Your task to perform on an android device: toggle pop-ups in chrome Image 0: 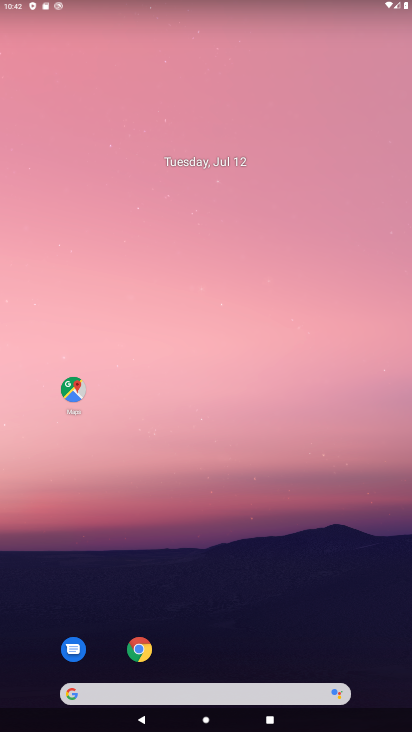
Step 0: drag from (270, 639) to (223, 48)
Your task to perform on an android device: toggle pop-ups in chrome Image 1: 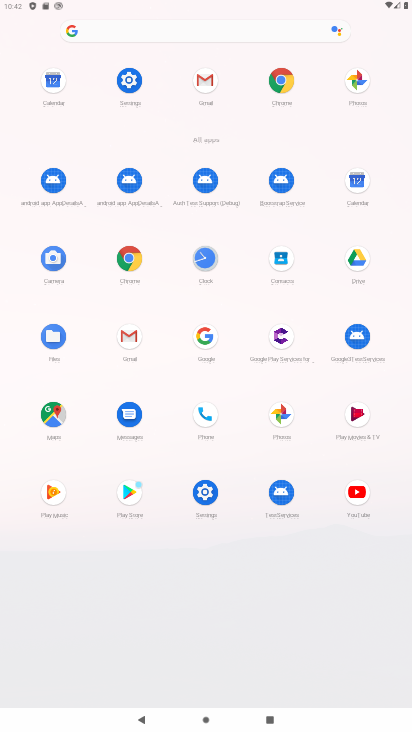
Step 1: click (141, 78)
Your task to perform on an android device: toggle pop-ups in chrome Image 2: 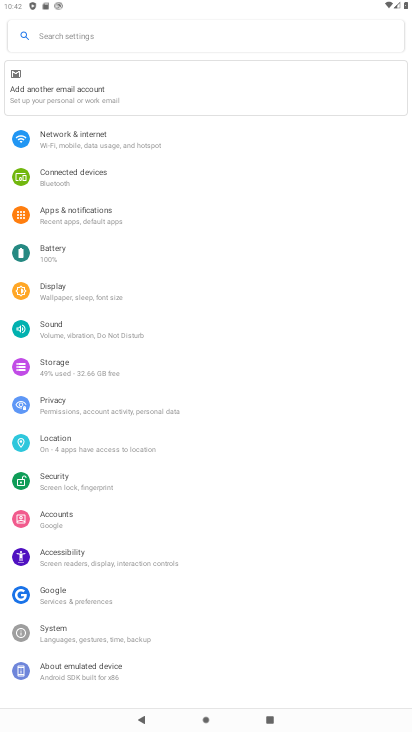
Step 2: press home button
Your task to perform on an android device: toggle pop-ups in chrome Image 3: 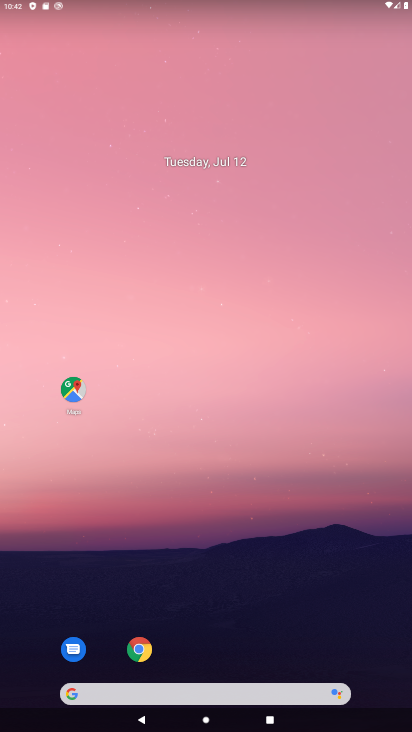
Step 3: click (151, 654)
Your task to perform on an android device: toggle pop-ups in chrome Image 4: 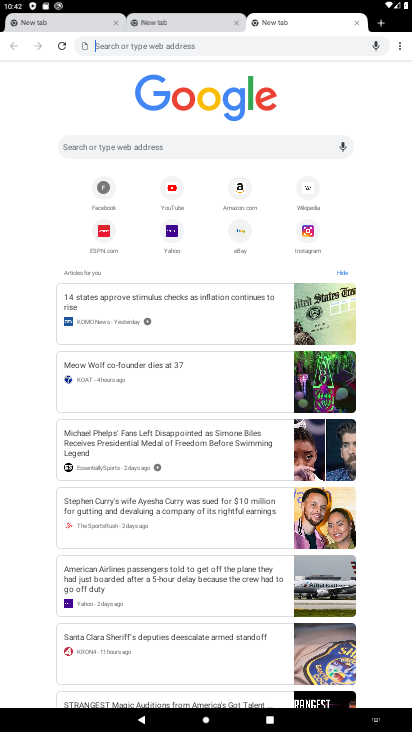
Step 4: click (403, 43)
Your task to perform on an android device: toggle pop-ups in chrome Image 5: 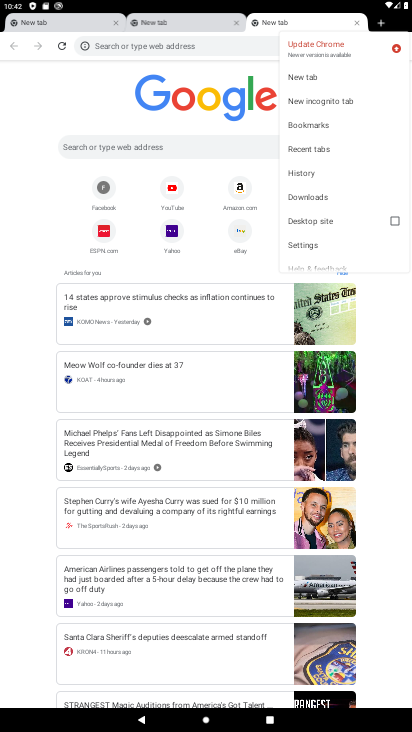
Step 5: click (314, 246)
Your task to perform on an android device: toggle pop-ups in chrome Image 6: 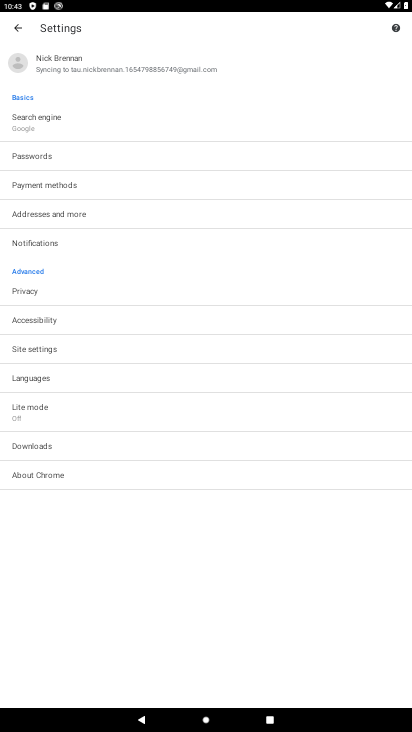
Step 6: click (65, 352)
Your task to perform on an android device: toggle pop-ups in chrome Image 7: 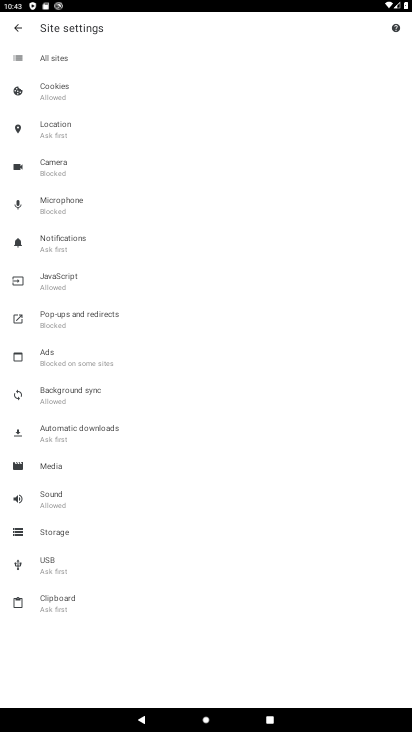
Step 7: click (84, 319)
Your task to perform on an android device: toggle pop-ups in chrome Image 8: 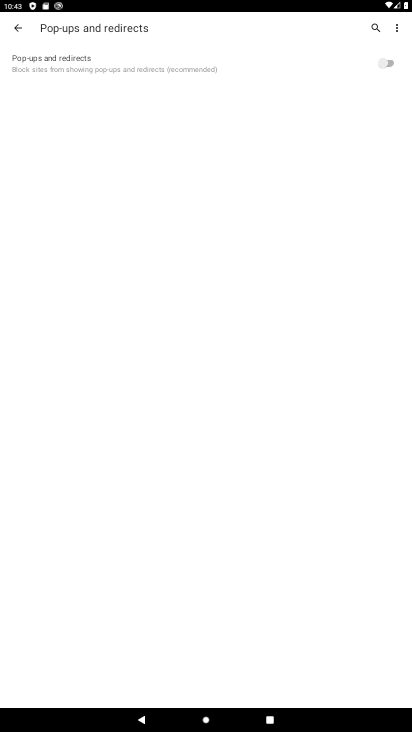
Step 8: click (382, 63)
Your task to perform on an android device: toggle pop-ups in chrome Image 9: 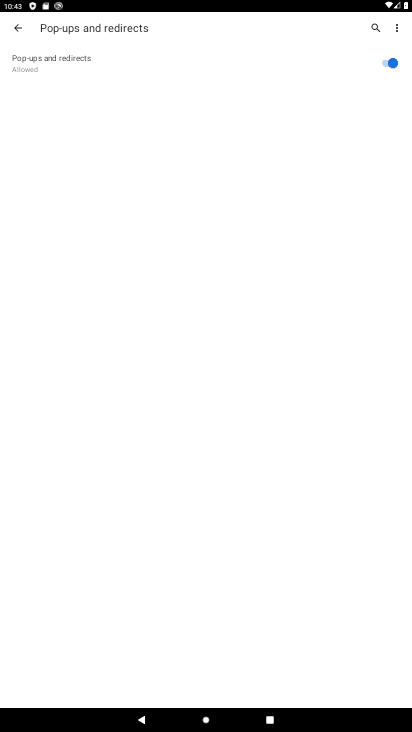
Step 9: task complete